Your task to perform on an android device: Open Chrome and go to the settings page Image 0: 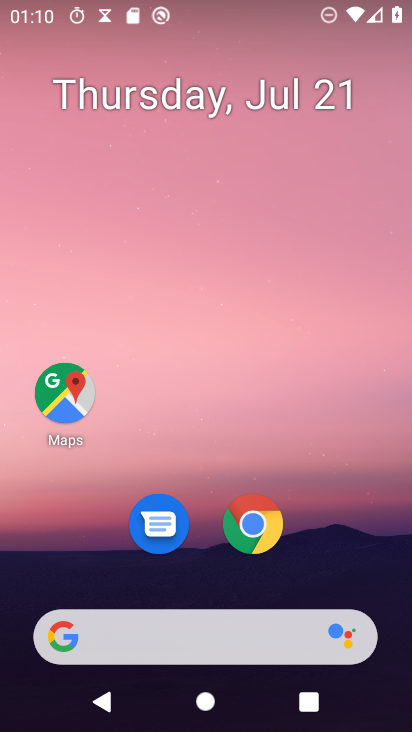
Step 0: click (245, 531)
Your task to perform on an android device: Open Chrome and go to the settings page Image 1: 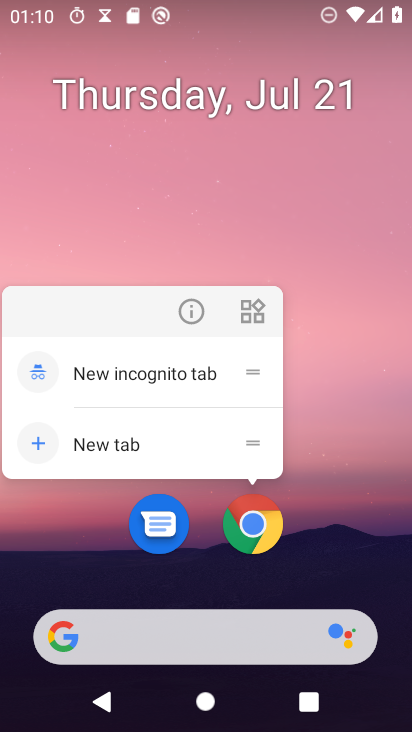
Step 1: click (253, 528)
Your task to perform on an android device: Open Chrome and go to the settings page Image 2: 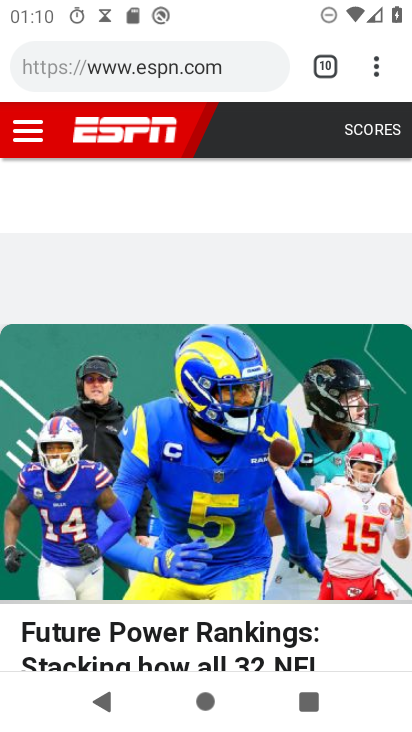
Step 2: task complete